Your task to perform on an android device: Open privacy settings Image 0: 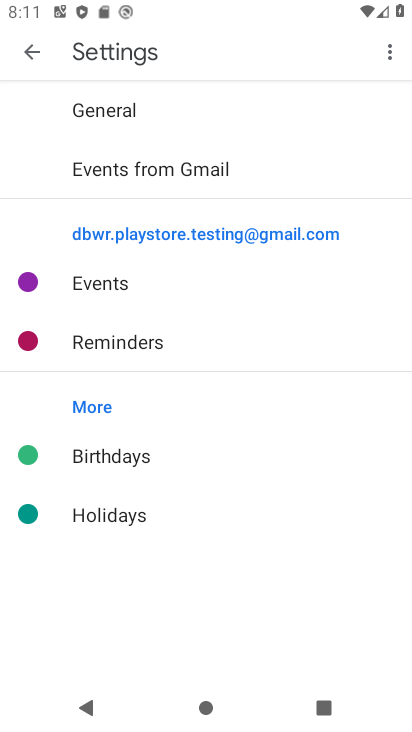
Step 0: press back button
Your task to perform on an android device: Open privacy settings Image 1: 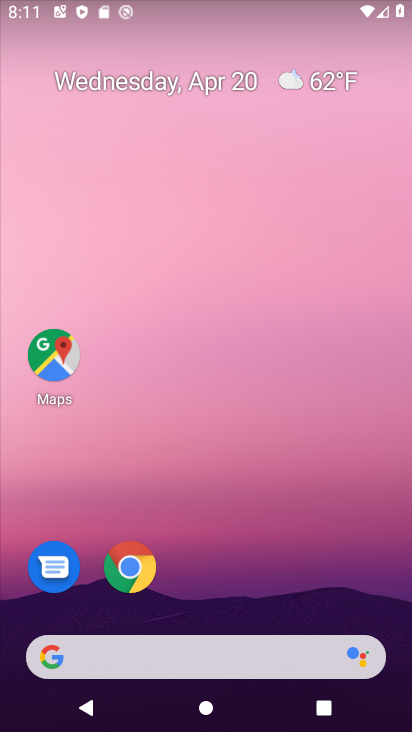
Step 1: drag from (277, 489) to (275, 78)
Your task to perform on an android device: Open privacy settings Image 2: 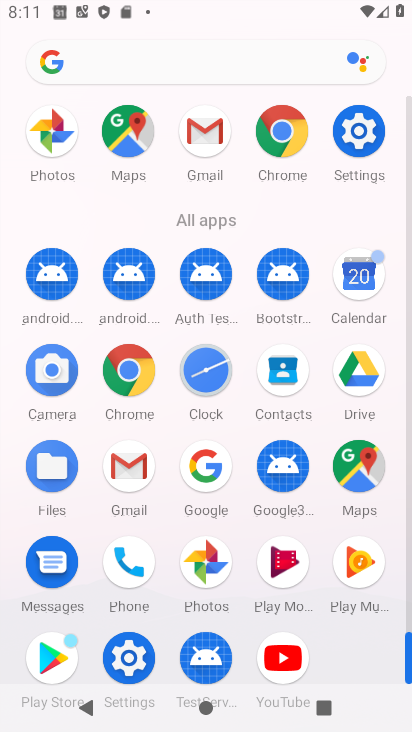
Step 2: click (128, 658)
Your task to perform on an android device: Open privacy settings Image 3: 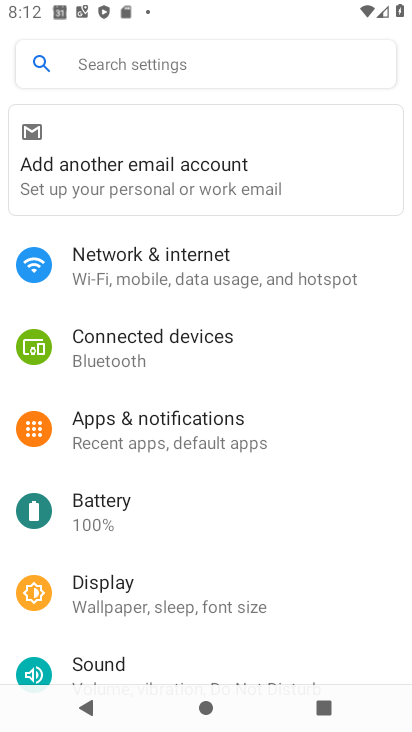
Step 3: press back button
Your task to perform on an android device: Open privacy settings Image 4: 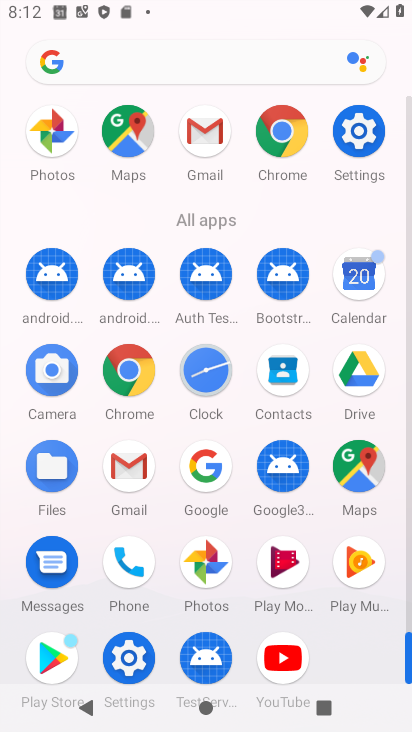
Step 4: click (127, 370)
Your task to perform on an android device: Open privacy settings Image 5: 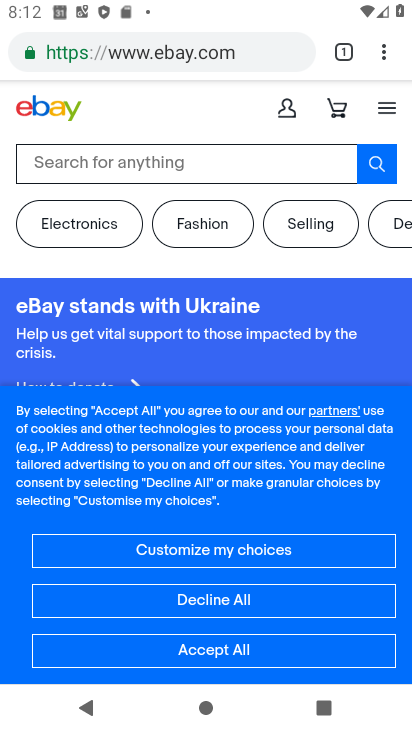
Step 5: drag from (384, 49) to (206, 619)
Your task to perform on an android device: Open privacy settings Image 6: 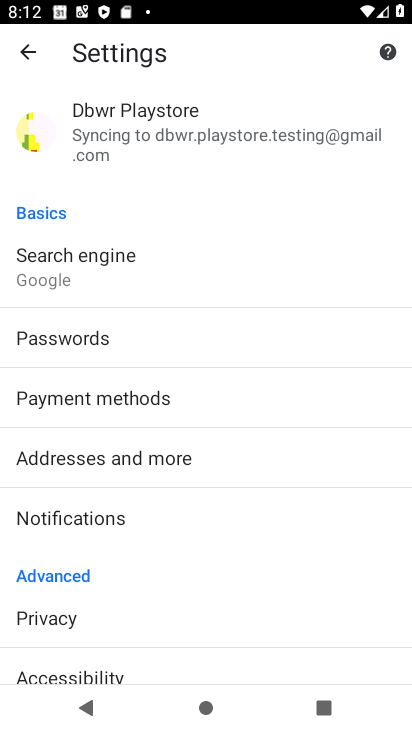
Step 6: click (37, 625)
Your task to perform on an android device: Open privacy settings Image 7: 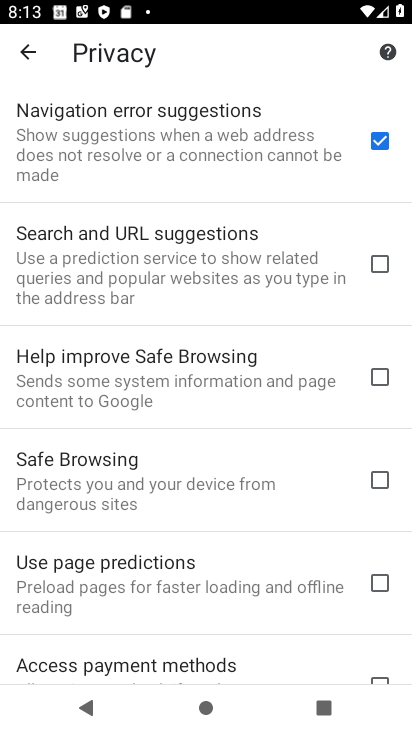
Step 7: task complete